Your task to perform on an android device: Open battery settings Image 0: 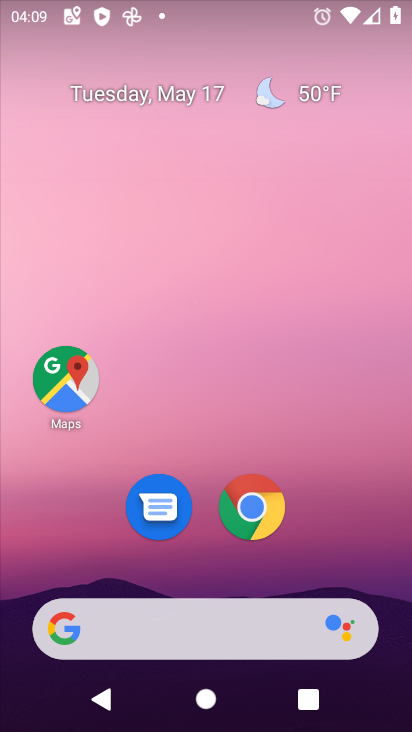
Step 0: drag from (340, 533) to (270, 44)
Your task to perform on an android device: Open battery settings Image 1: 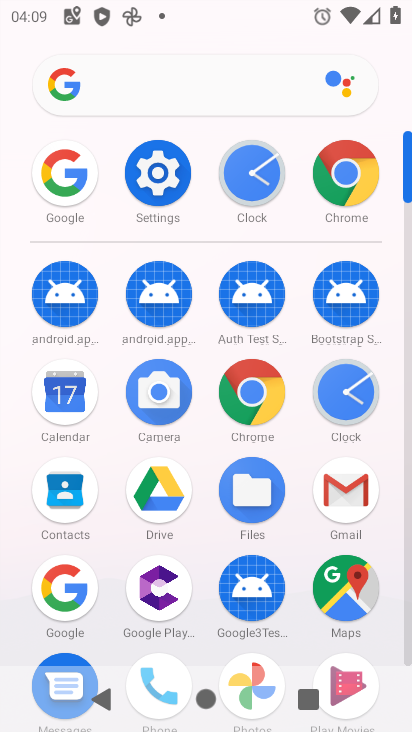
Step 1: click (164, 163)
Your task to perform on an android device: Open battery settings Image 2: 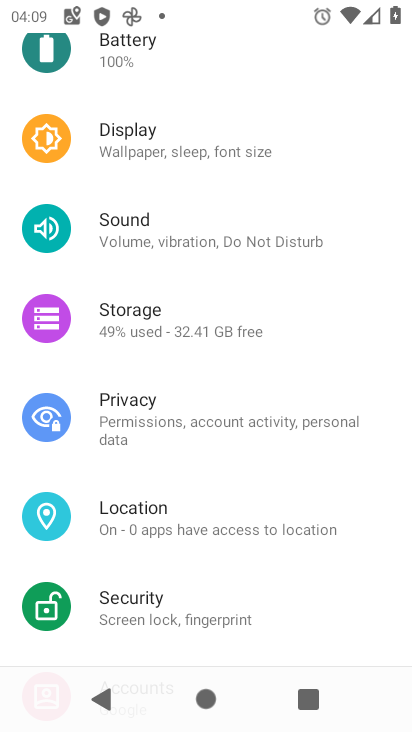
Step 2: click (198, 51)
Your task to perform on an android device: Open battery settings Image 3: 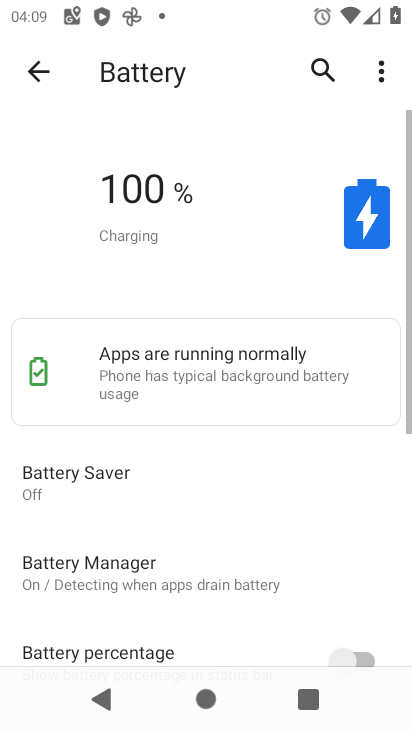
Step 3: task complete